Your task to perform on an android device: What's on my calendar today? Image 0: 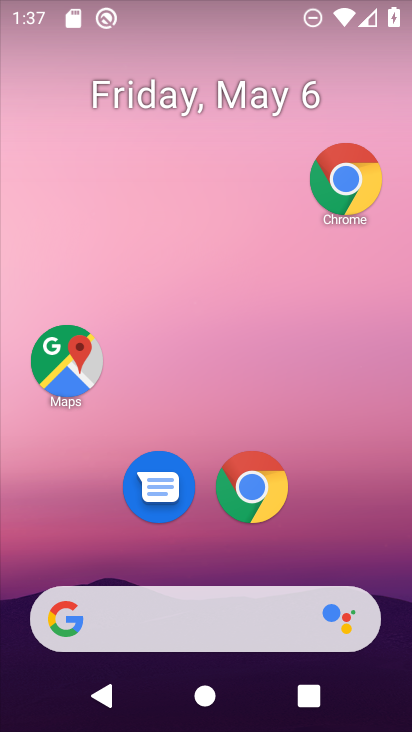
Step 0: drag from (340, 528) to (236, 100)
Your task to perform on an android device: What's on my calendar today? Image 1: 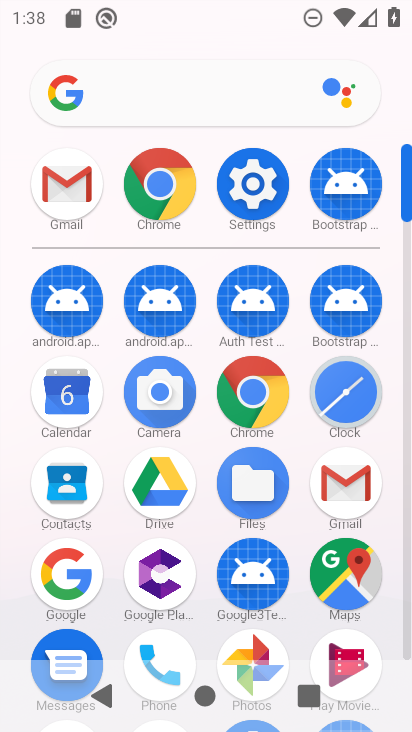
Step 1: click (73, 413)
Your task to perform on an android device: What's on my calendar today? Image 2: 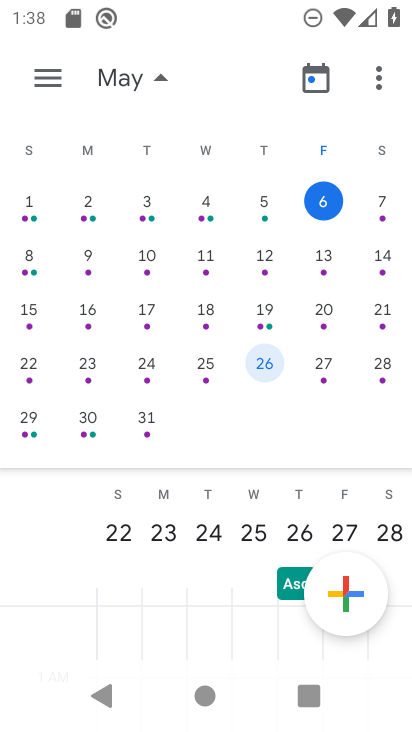
Step 2: task complete